Your task to perform on an android device: What's the weather today? Image 0: 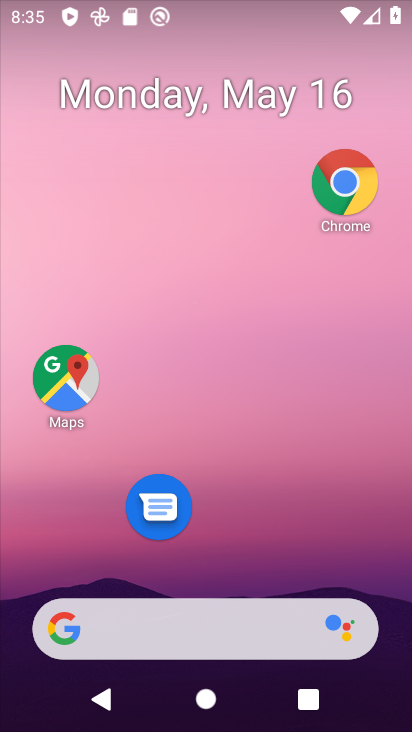
Step 0: click (354, 192)
Your task to perform on an android device: What's the weather today? Image 1: 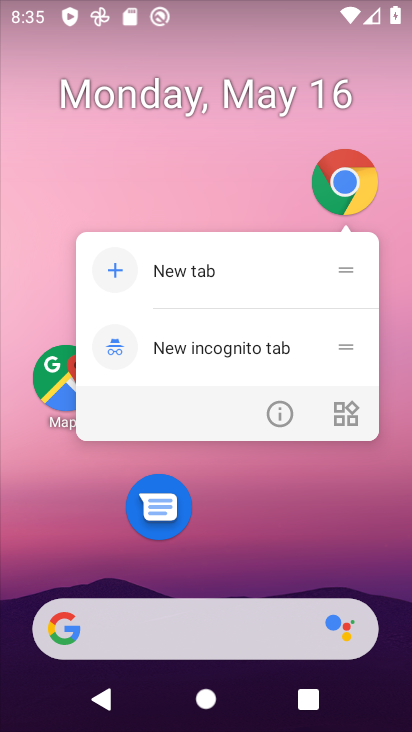
Step 1: click (337, 196)
Your task to perform on an android device: What's the weather today? Image 2: 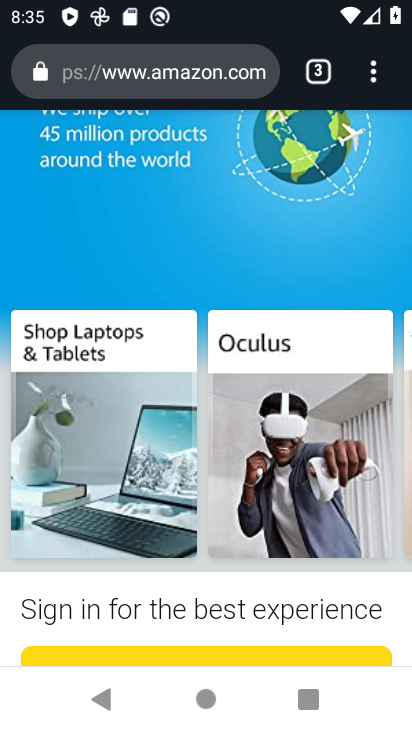
Step 2: click (256, 76)
Your task to perform on an android device: What's the weather today? Image 3: 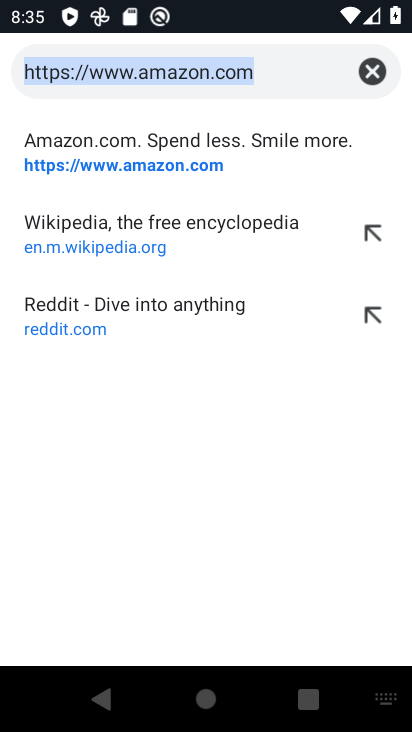
Step 3: click (361, 66)
Your task to perform on an android device: What's the weather today? Image 4: 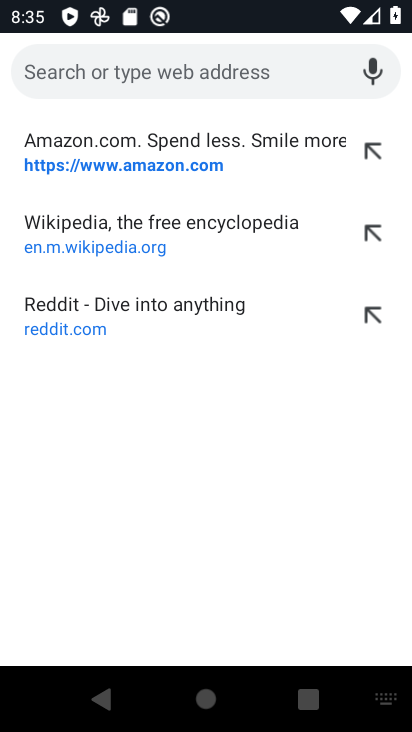
Step 4: type "What's the weather today?"
Your task to perform on an android device: What's the weather today? Image 5: 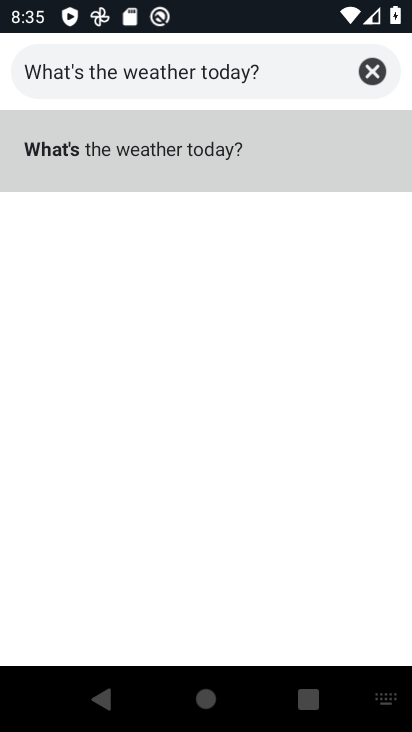
Step 5: click (215, 155)
Your task to perform on an android device: What's the weather today? Image 6: 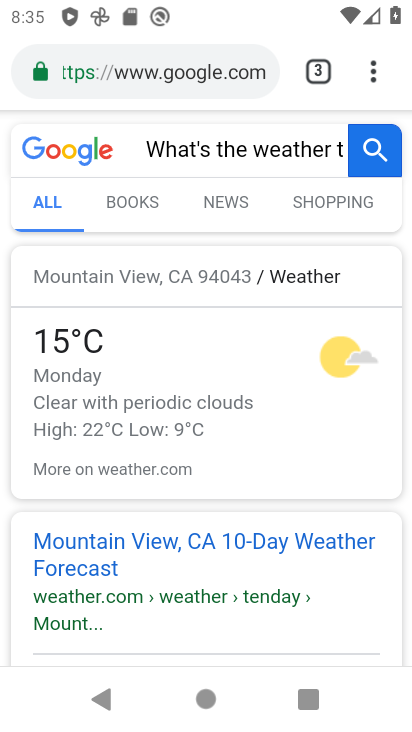
Step 6: task complete